Your task to perform on an android device: turn off location history Image 0: 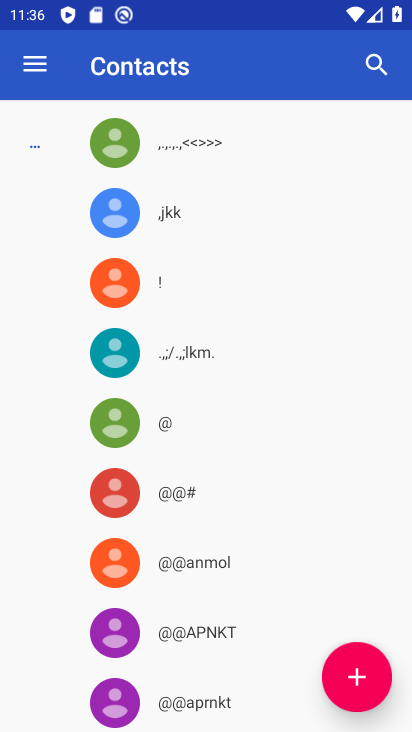
Step 0: press home button
Your task to perform on an android device: turn off location history Image 1: 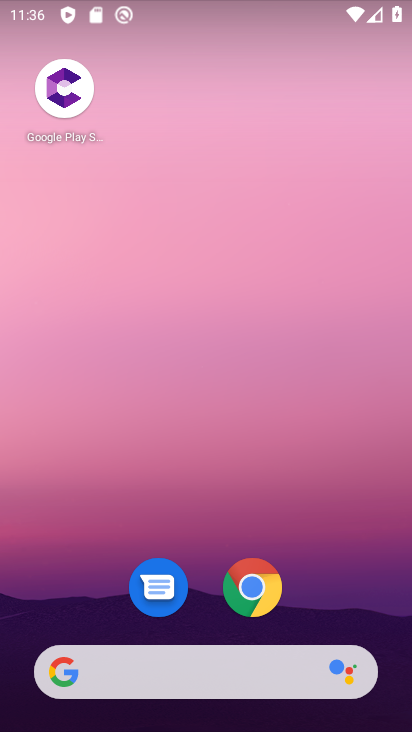
Step 1: drag from (319, 550) to (307, 137)
Your task to perform on an android device: turn off location history Image 2: 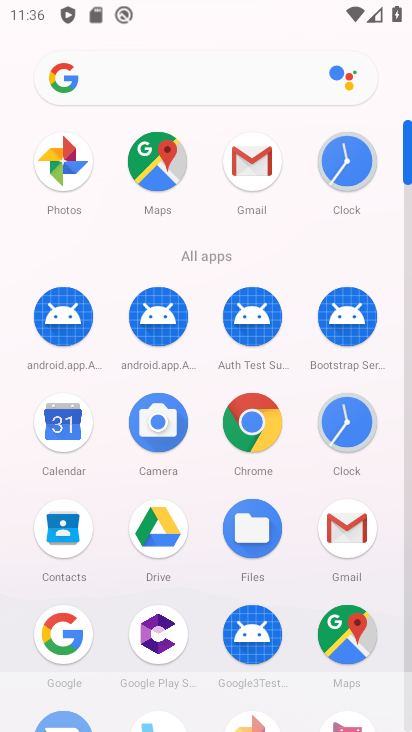
Step 2: drag from (207, 508) to (182, 292)
Your task to perform on an android device: turn off location history Image 3: 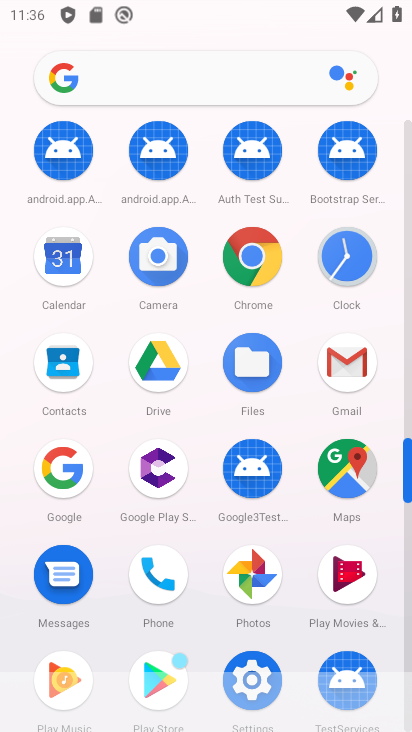
Step 3: click (252, 656)
Your task to perform on an android device: turn off location history Image 4: 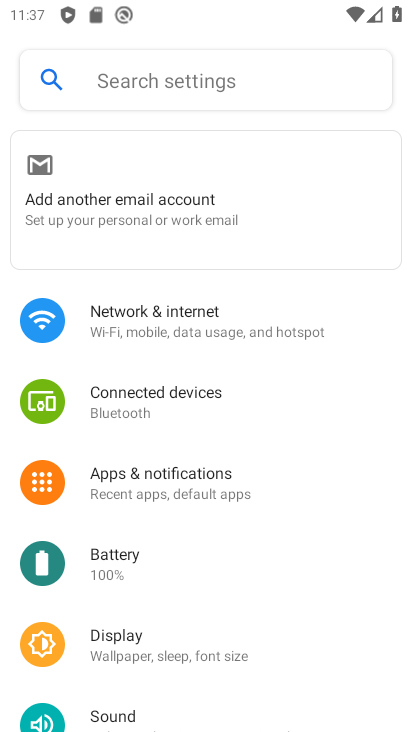
Step 4: drag from (237, 535) to (201, 29)
Your task to perform on an android device: turn off location history Image 5: 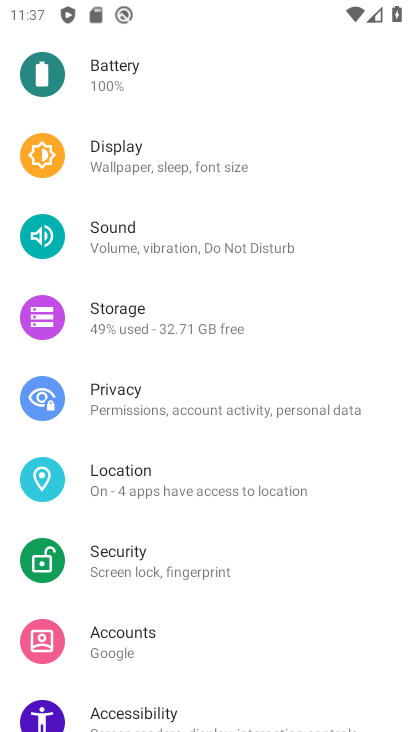
Step 5: click (153, 468)
Your task to perform on an android device: turn off location history Image 6: 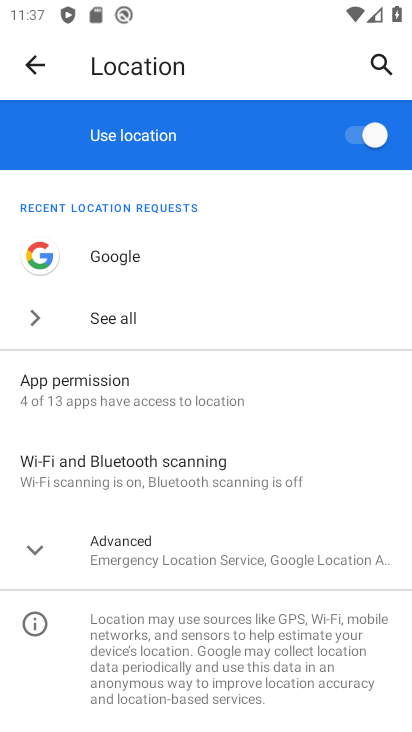
Step 6: click (161, 530)
Your task to perform on an android device: turn off location history Image 7: 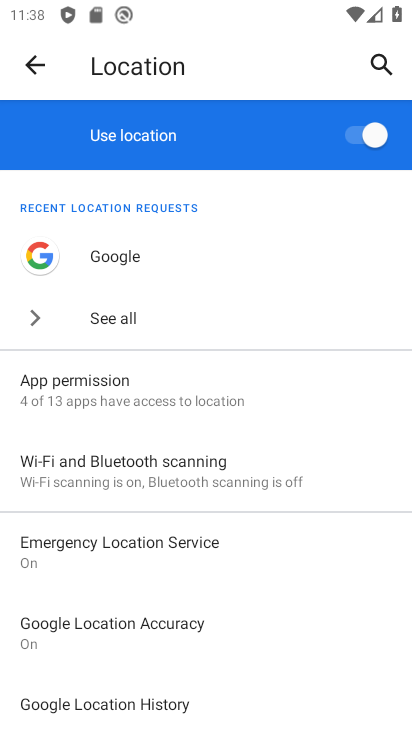
Step 7: click (148, 703)
Your task to perform on an android device: turn off location history Image 8: 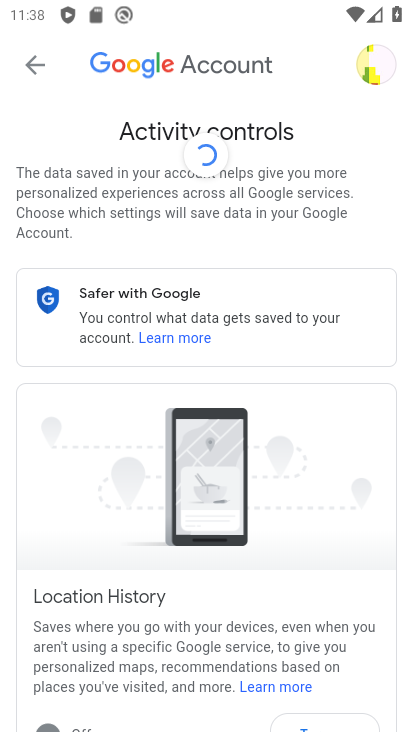
Step 8: task complete